Your task to perform on an android device: change the clock display to show seconds Image 0: 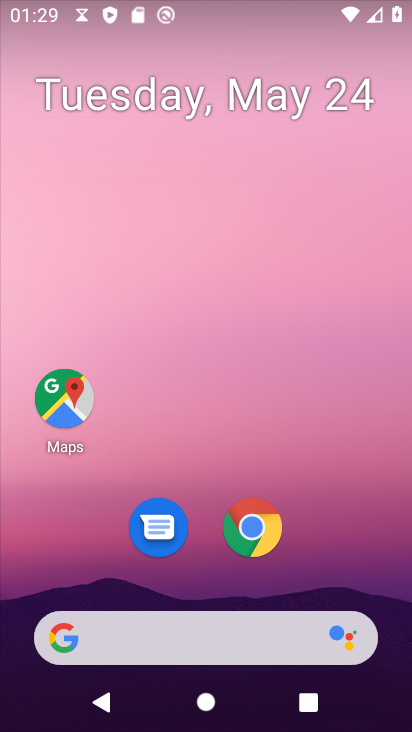
Step 0: press home button
Your task to perform on an android device: change the clock display to show seconds Image 1: 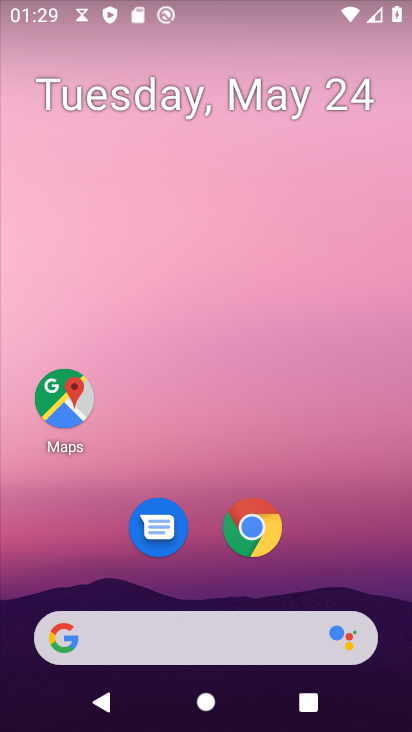
Step 1: drag from (214, 636) to (318, 134)
Your task to perform on an android device: change the clock display to show seconds Image 2: 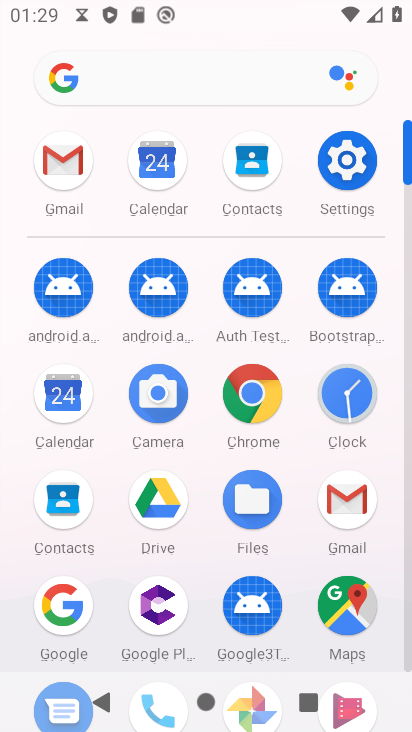
Step 2: click (336, 403)
Your task to perform on an android device: change the clock display to show seconds Image 3: 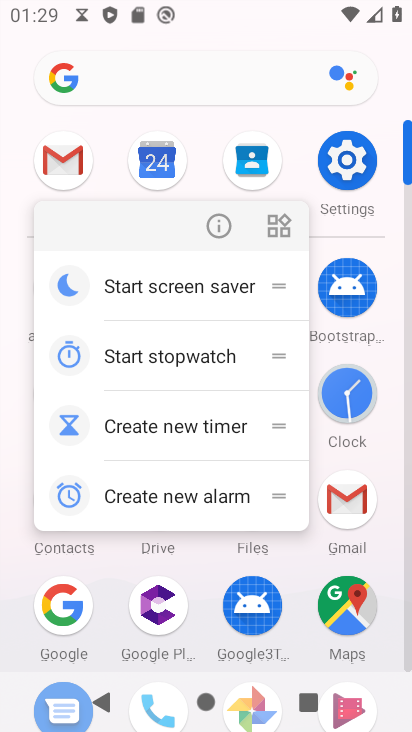
Step 3: click (349, 398)
Your task to perform on an android device: change the clock display to show seconds Image 4: 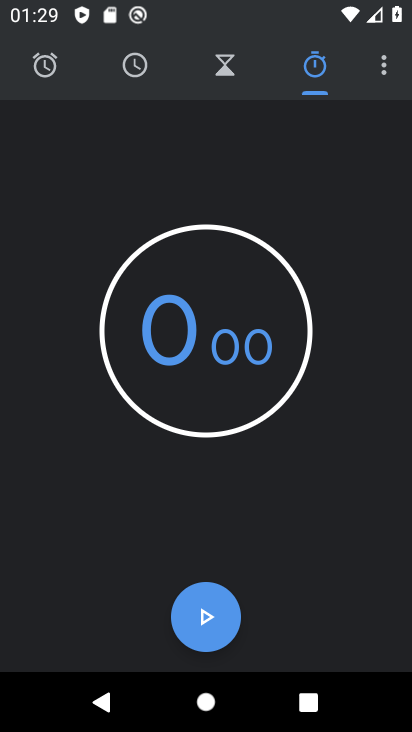
Step 4: click (380, 65)
Your task to perform on an android device: change the clock display to show seconds Image 5: 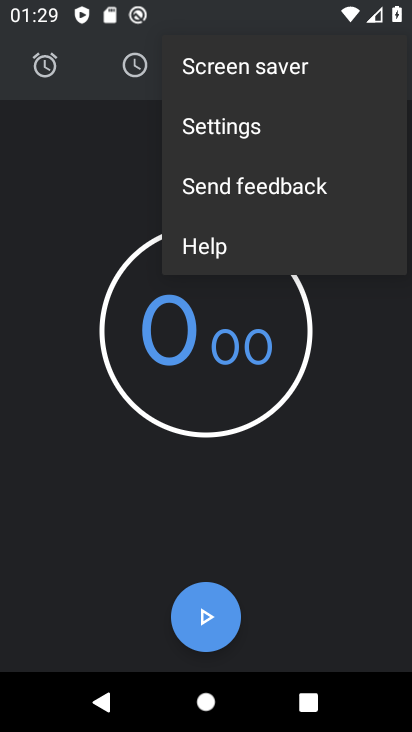
Step 5: click (262, 134)
Your task to perform on an android device: change the clock display to show seconds Image 6: 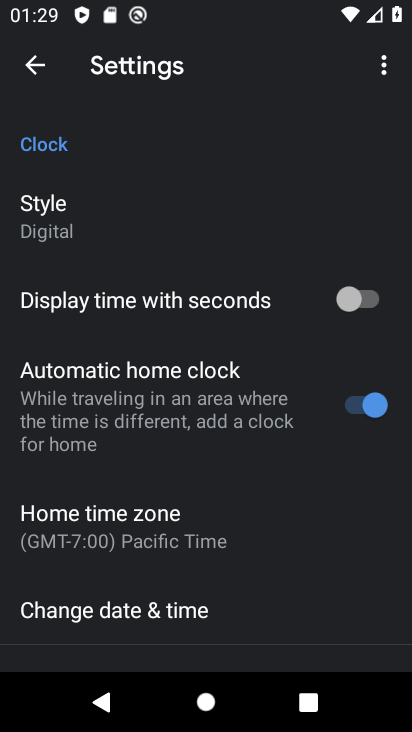
Step 6: click (373, 297)
Your task to perform on an android device: change the clock display to show seconds Image 7: 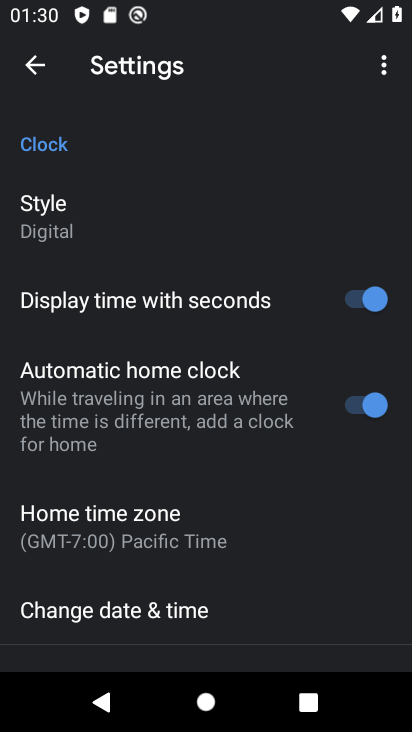
Step 7: task complete